Your task to perform on an android device: Add "macbook" to the cart on amazon.com Image 0: 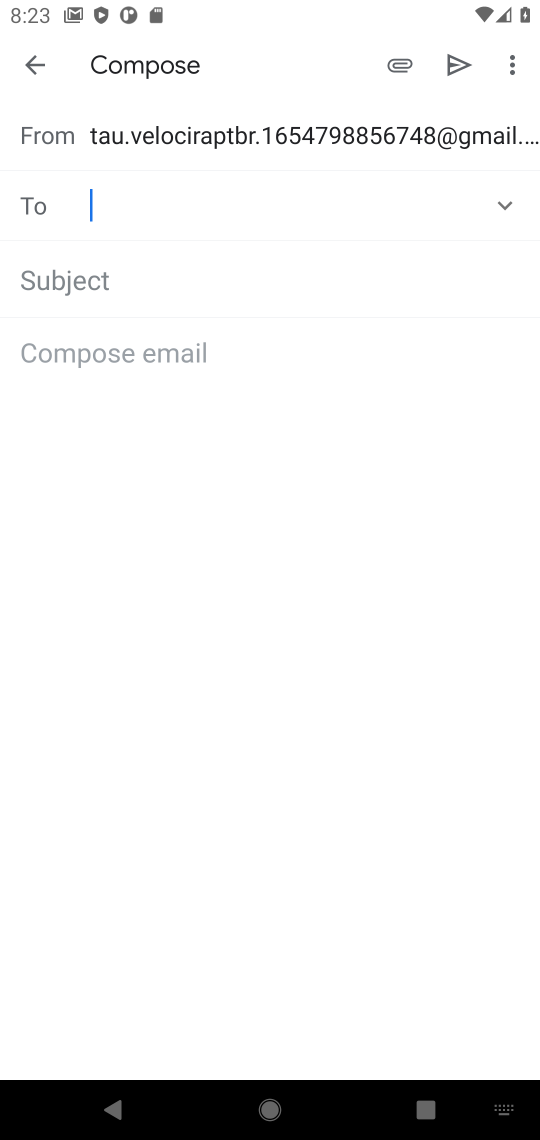
Step 0: task complete